Your task to perform on an android device: turn off notifications in google photos Image 0: 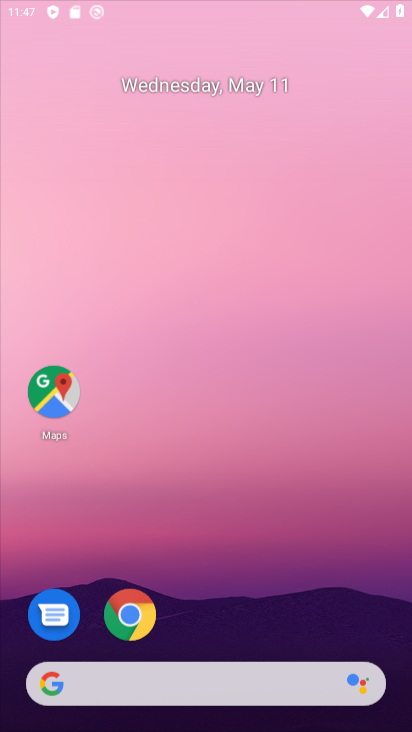
Step 0: drag from (314, 538) to (240, 2)
Your task to perform on an android device: turn off notifications in google photos Image 1: 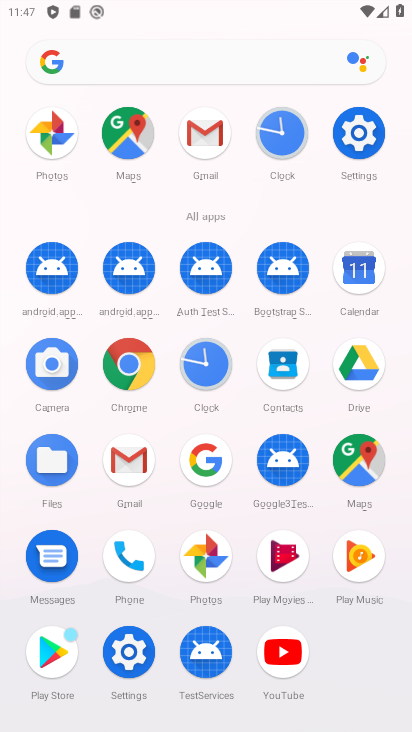
Step 1: click (130, 381)
Your task to perform on an android device: turn off notifications in google photos Image 2: 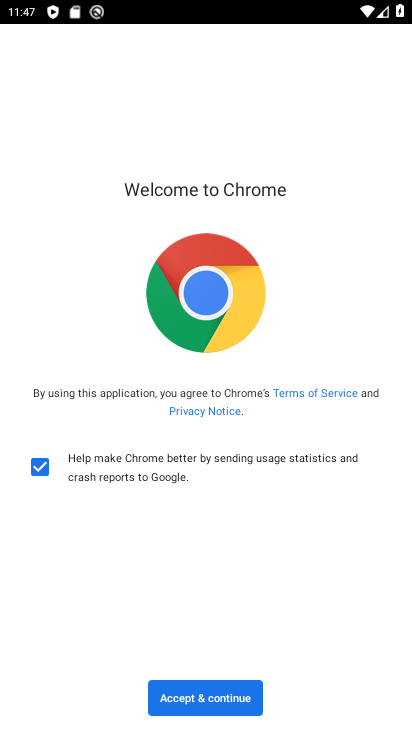
Step 2: click (188, 700)
Your task to perform on an android device: turn off notifications in google photos Image 3: 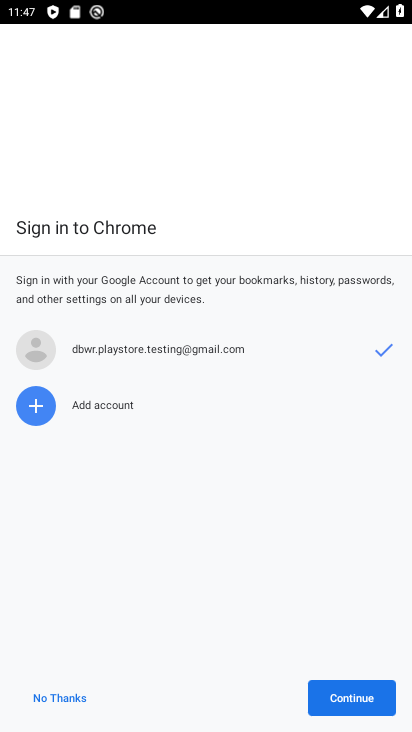
Step 3: click (368, 696)
Your task to perform on an android device: turn off notifications in google photos Image 4: 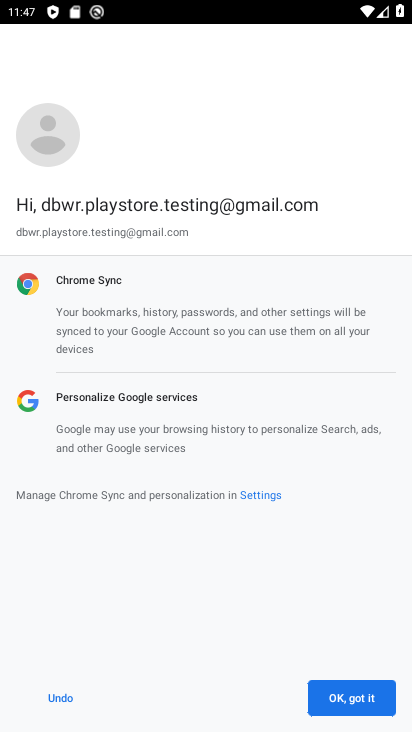
Step 4: click (344, 701)
Your task to perform on an android device: turn off notifications in google photos Image 5: 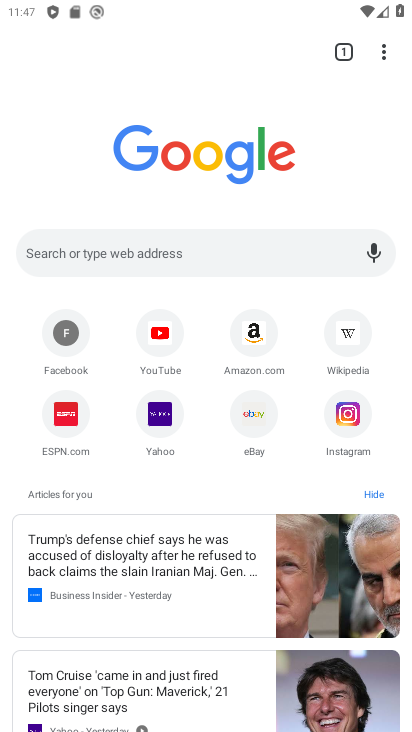
Step 5: drag from (385, 51) to (213, 432)
Your task to perform on an android device: turn off notifications in google photos Image 6: 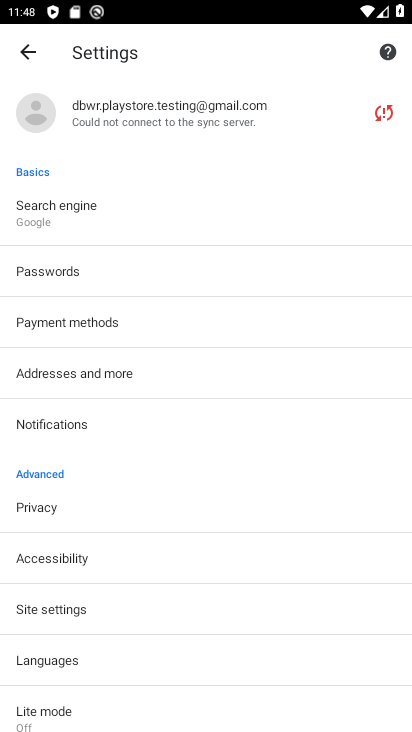
Step 6: click (32, 414)
Your task to perform on an android device: turn off notifications in google photos Image 7: 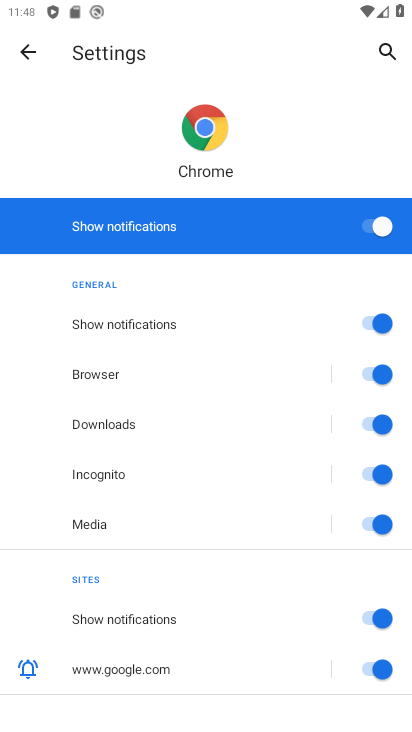
Step 7: click (389, 233)
Your task to perform on an android device: turn off notifications in google photos Image 8: 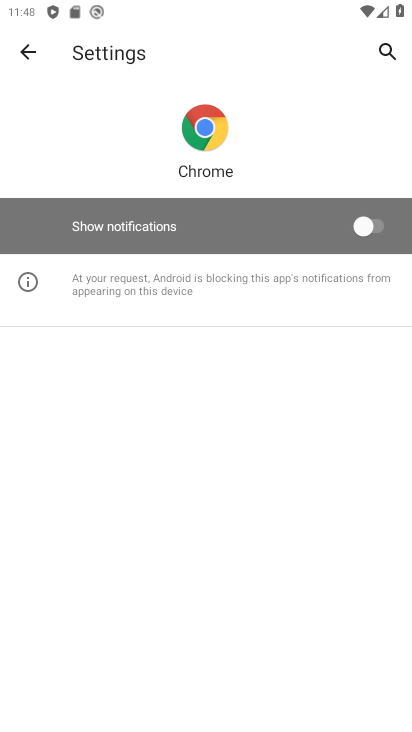
Step 8: task complete